Your task to perform on an android device: Go to privacy settings Image 0: 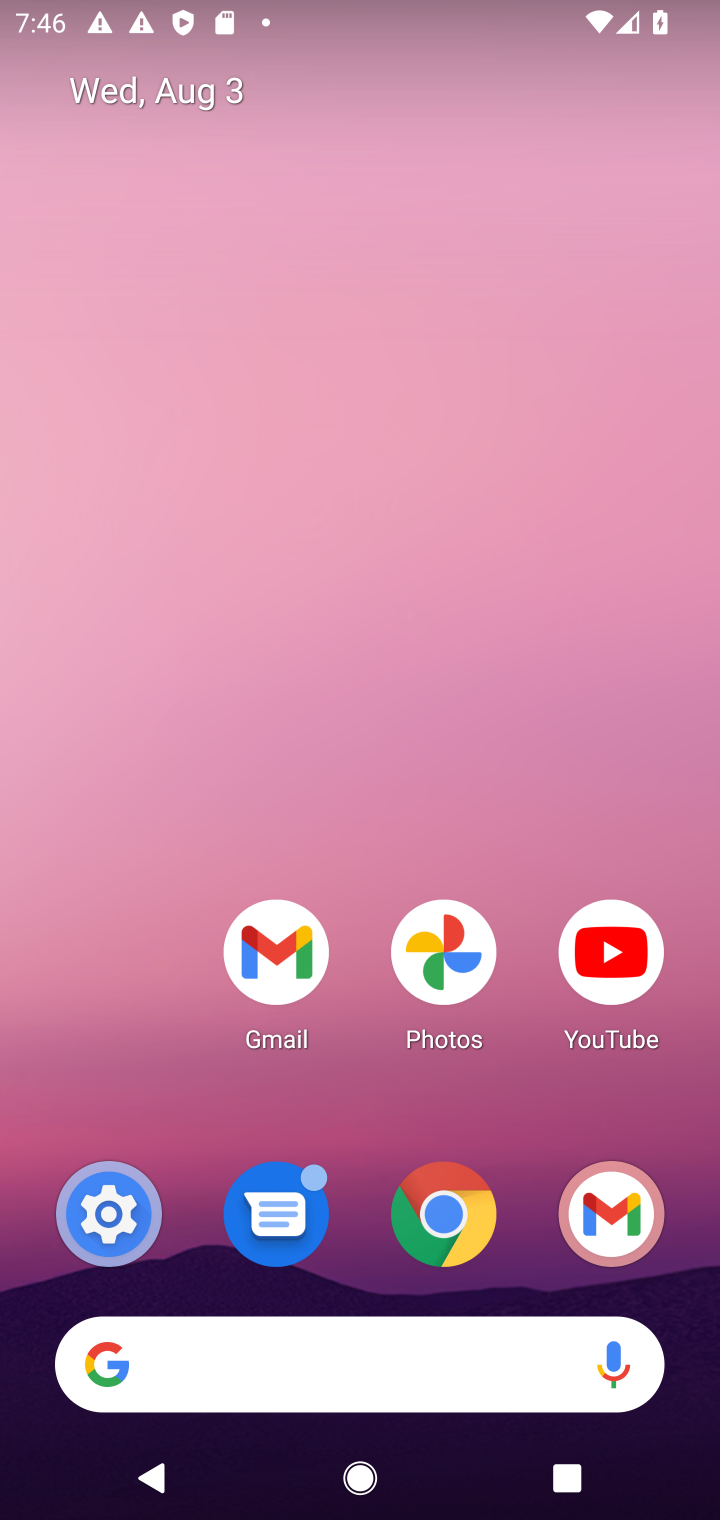
Step 0: drag from (332, 896) to (367, 214)
Your task to perform on an android device: Go to privacy settings Image 1: 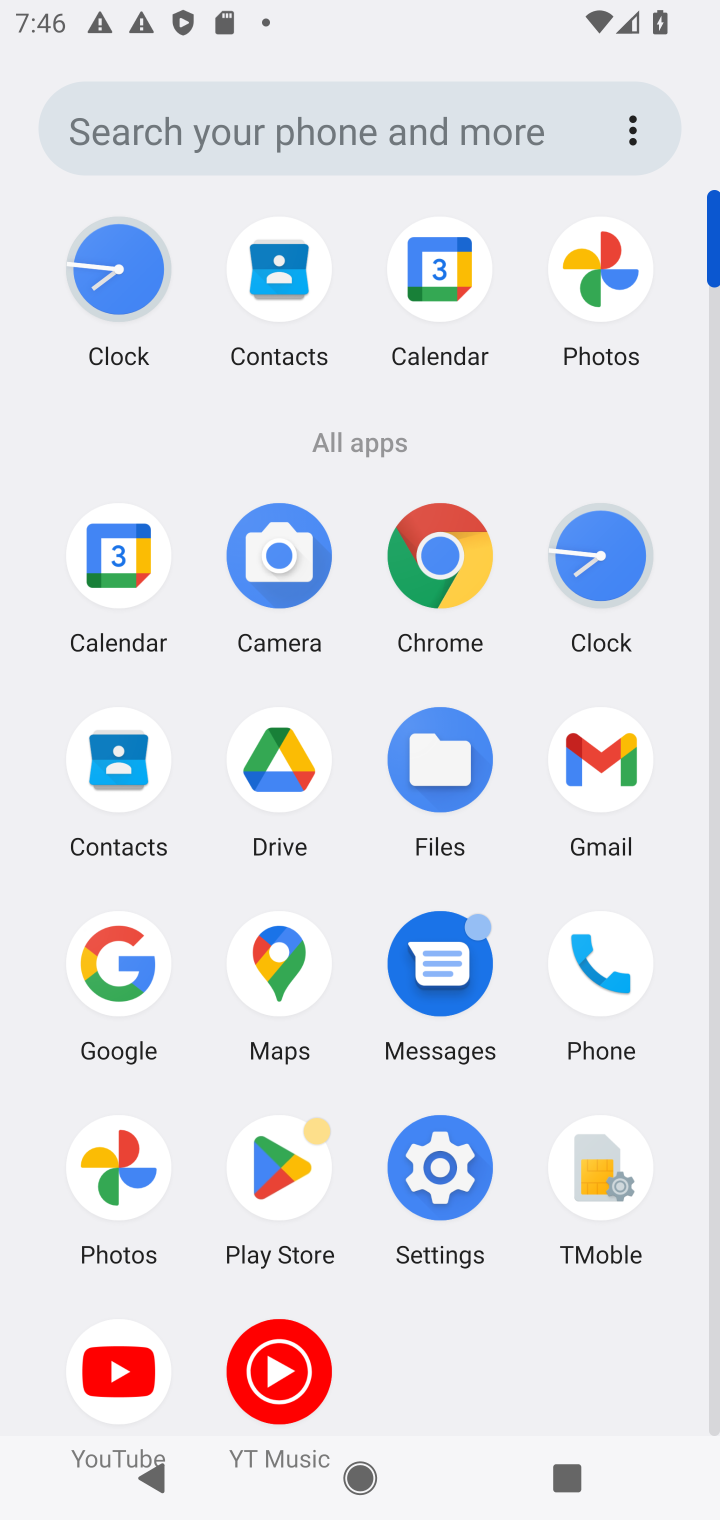
Step 1: click (416, 1170)
Your task to perform on an android device: Go to privacy settings Image 2: 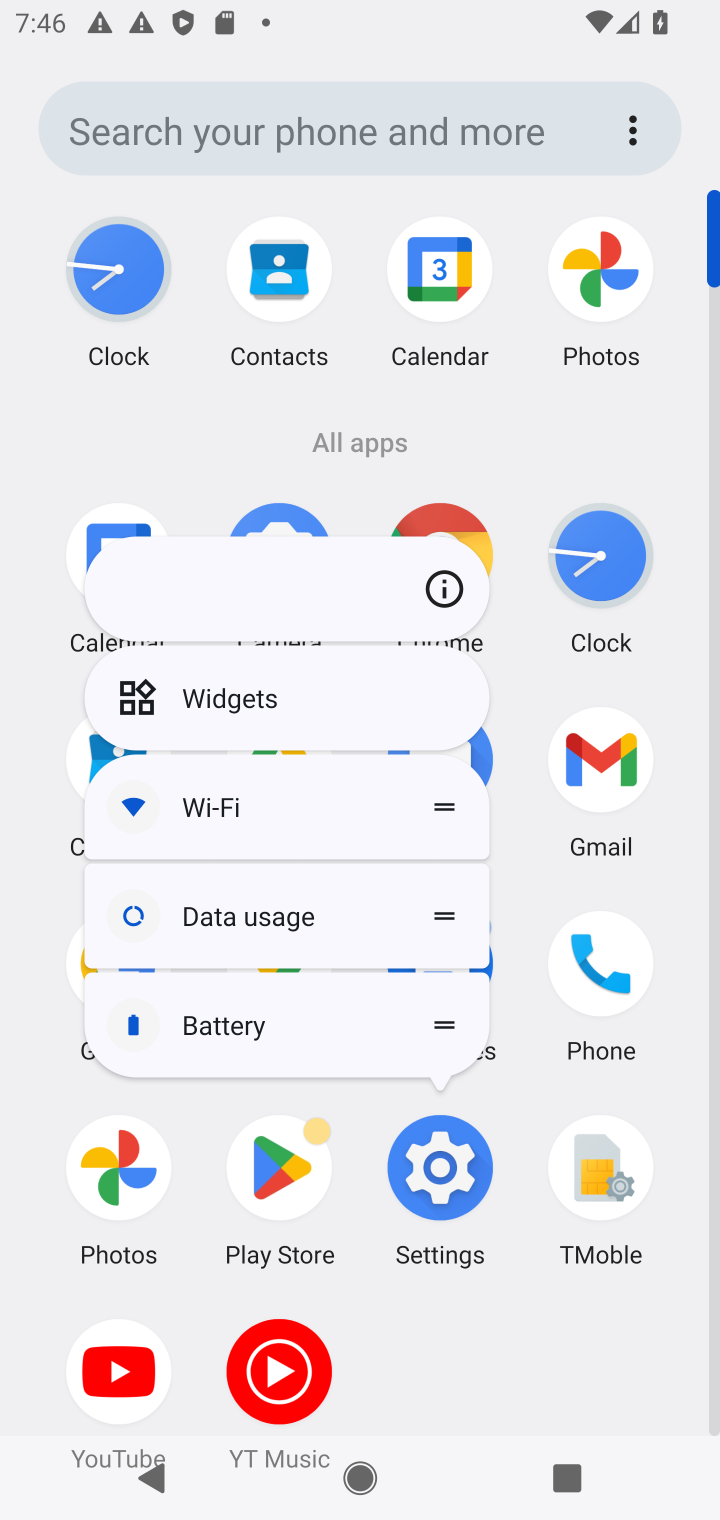
Step 2: click (448, 1183)
Your task to perform on an android device: Go to privacy settings Image 3: 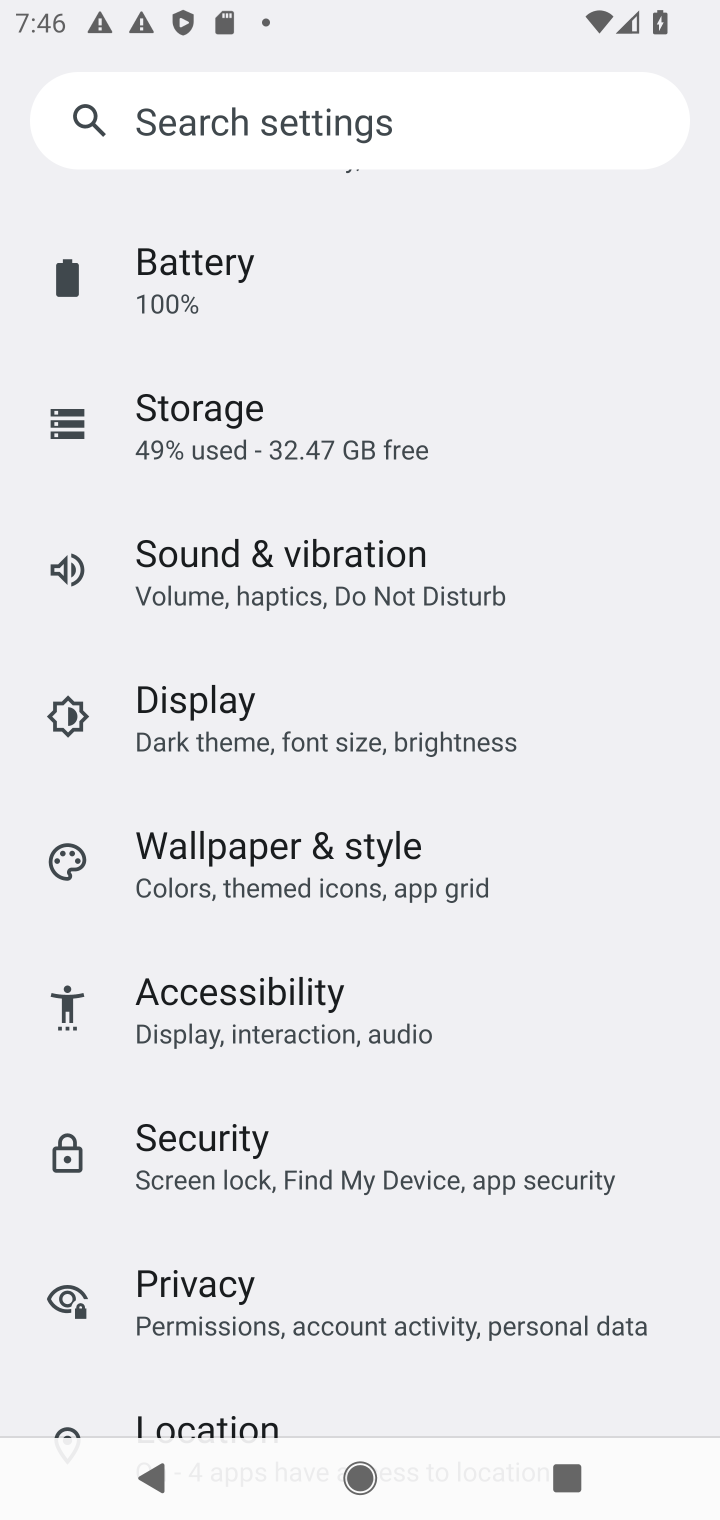
Step 3: click (220, 1286)
Your task to perform on an android device: Go to privacy settings Image 4: 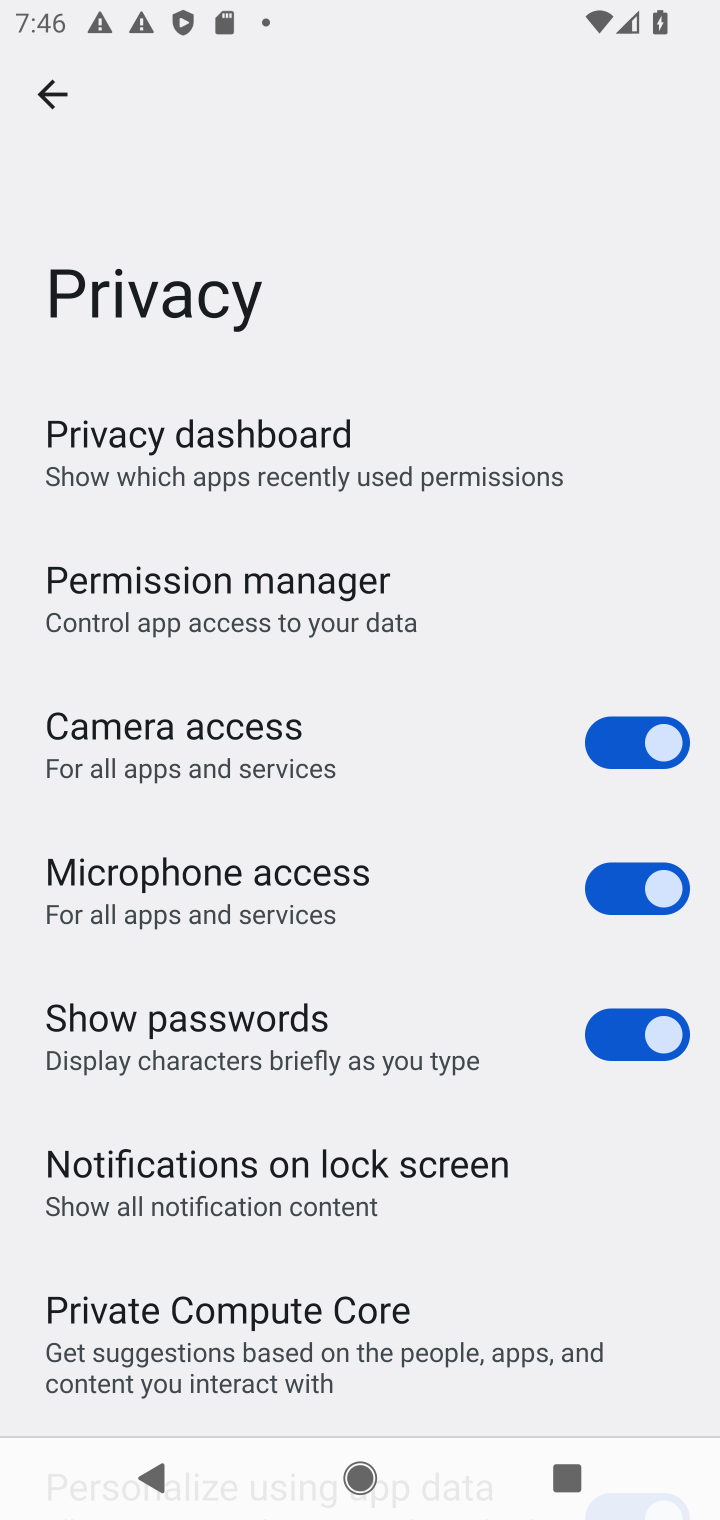
Step 4: task complete